Your task to perform on an android device: see sites visited before in the chrome app Image 0: 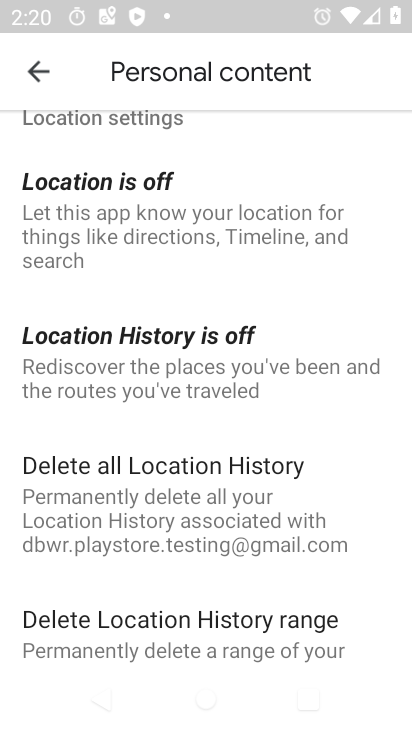
Step 0: press home button
Your task to perform on an android device: see sites visited before in the chrome app Image 1: 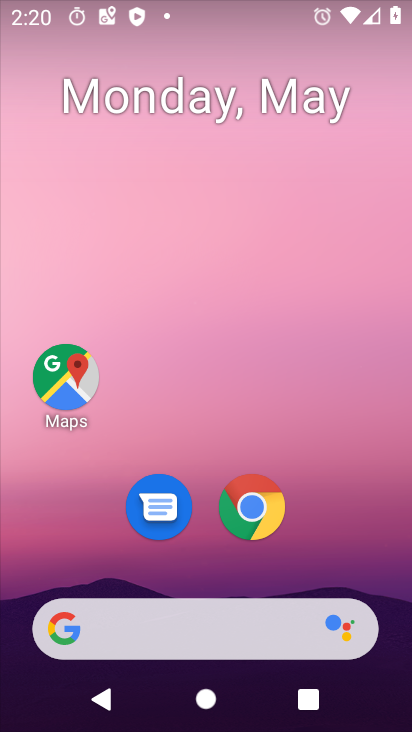
Step 1: click (248, 519)
Your task to perform on an android device: see sites visited before in the chrome app Image 2: 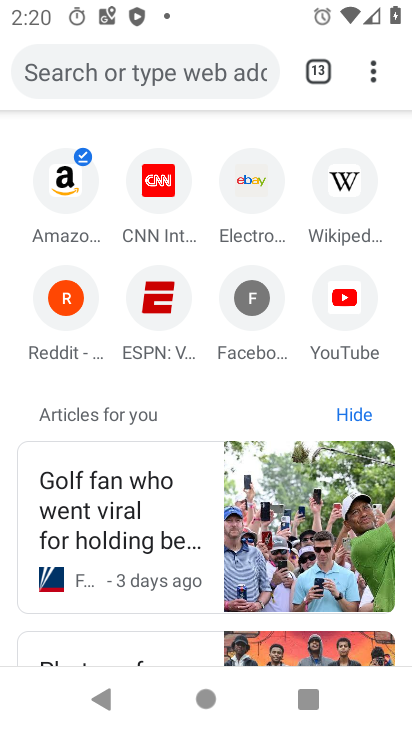
Step 2: click (374, 77)
Your task to perform on an android device: see sites visited before in the chrome app Image 3: 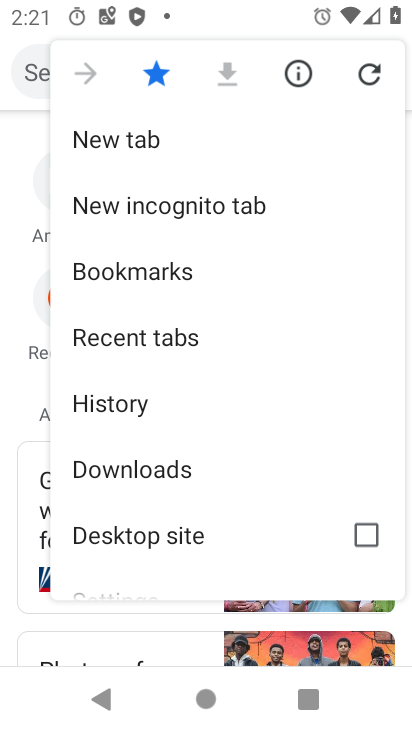
Step 3: click (102, 403)
Your task to perform on an android device: see sites visited before in the chrome app Image 4: 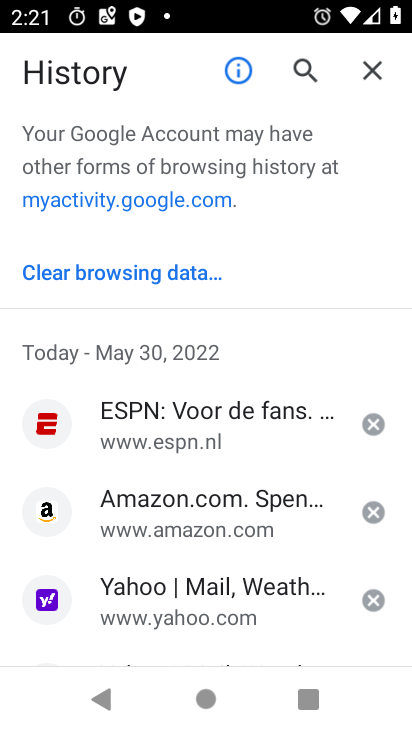
Step 4: task complete